Your task to perform on an android device: toggle improve location accuracy Image 0: 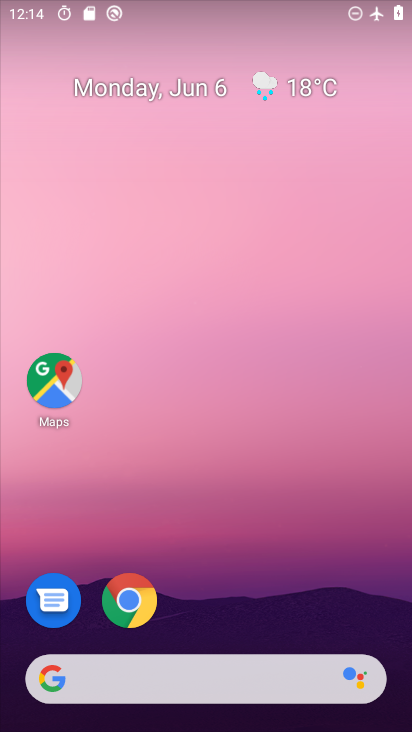
Step 0: drag from (207, 615) to (245, 257)
Your task to perform on an android device: toggle improve location accuracy Image 1: 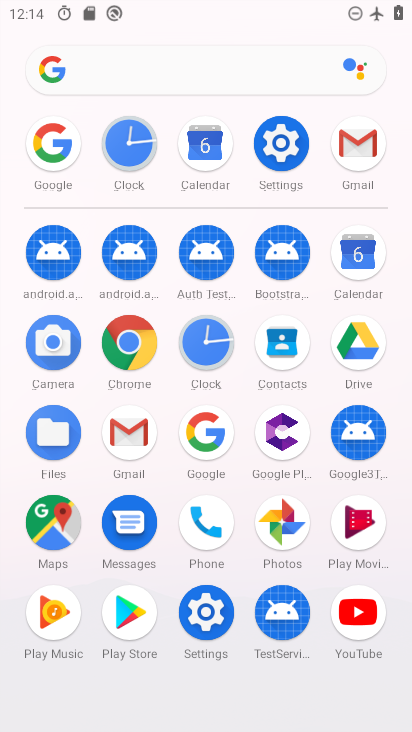
Step 1: click (280, 134)
Your task to perform on an android device: toggle improve location accuracy Image 2: 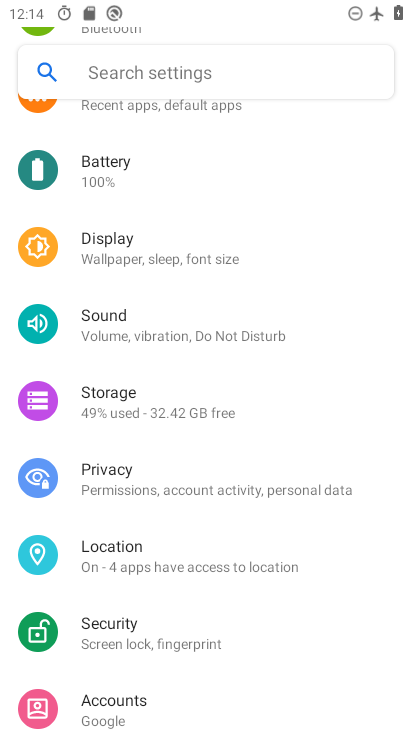
Step 2: click (161, 559)
Your task to perform on an android device: toggle improve location accuracy Image 3: 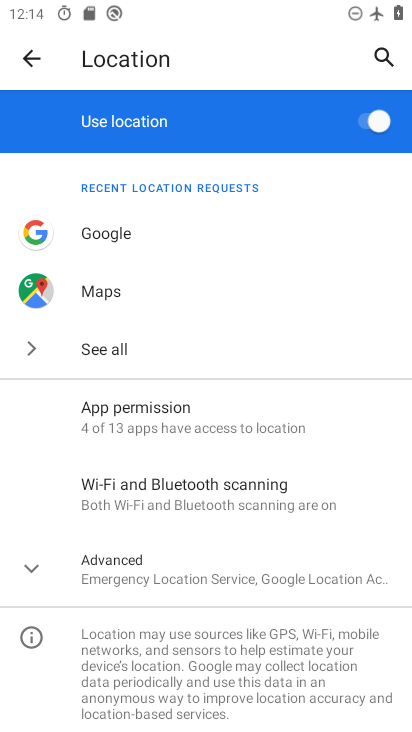
Step 3: click (156, 569)
Your task to perform on an android device: toggle improve location accuracy Image 4: 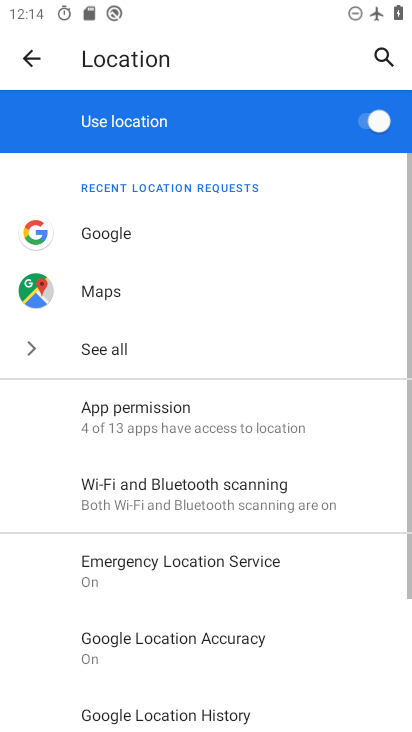
Step 4: drag from (203, 649) to (219, 495)
Your task to perform on an android device: toggle improve location accuracy Image 5: 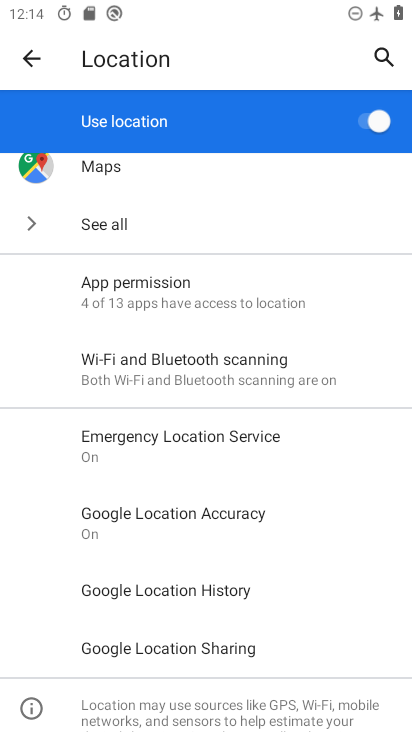
Step 5: click (202, 508)
Your task to perform on an android device: toggle improve location accuracy Image 6: 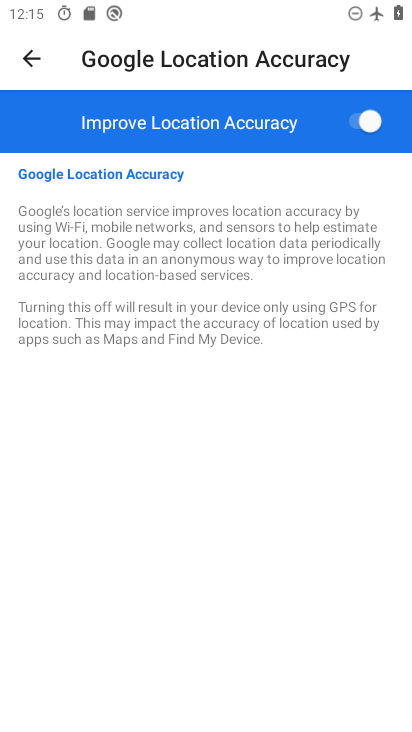
Step 6: click (348, 121)
Your task to perform on an android device: toggle improve location accuracy Image 7: 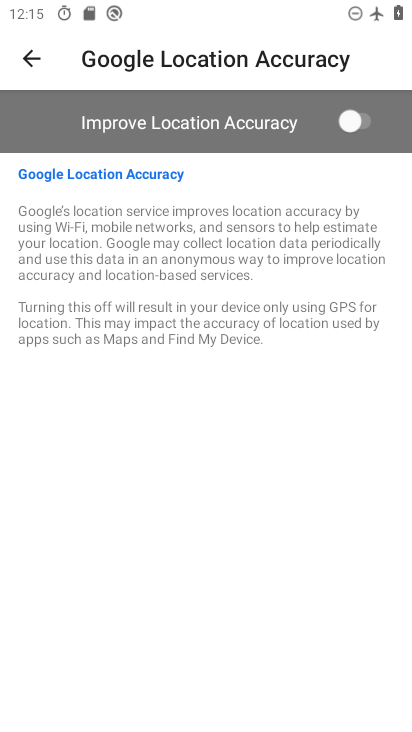
Step 7: task complete